Your task to perform on an android device: set the timer Image 0: 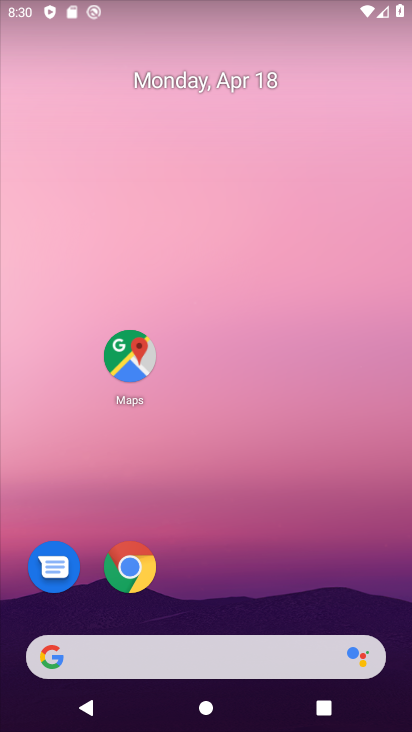
Step 0: click (297, 308)
Your task to perform on an android device: set the timer Image 1: 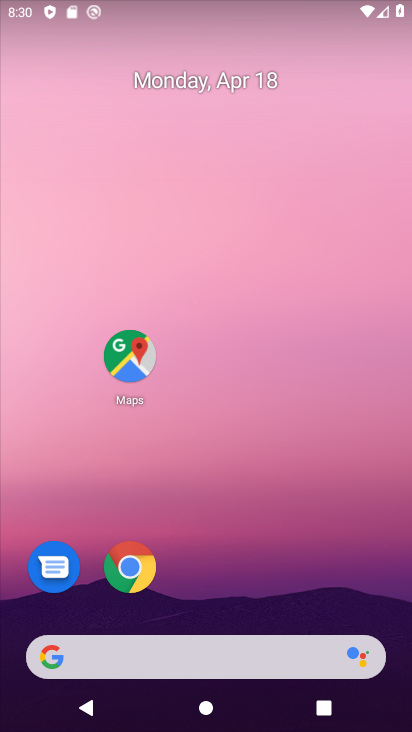
Step 1: drag from (226, 691) to (262, 59)
Your task to perform on an android device: set the timer Image 2: 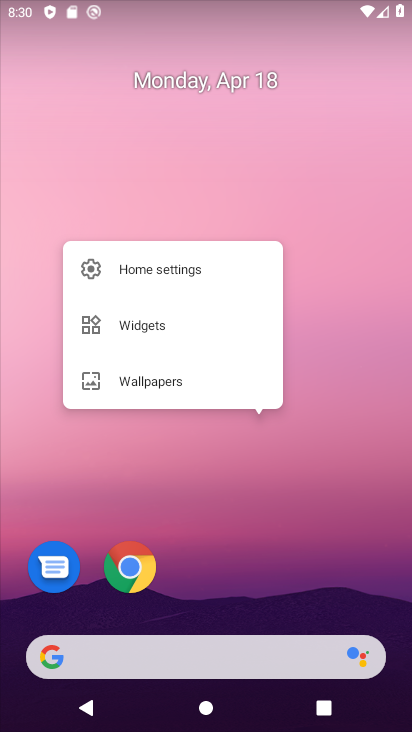
Step 2: click (208, 456)
Your task to perform on an android device: set the timer Image 3: 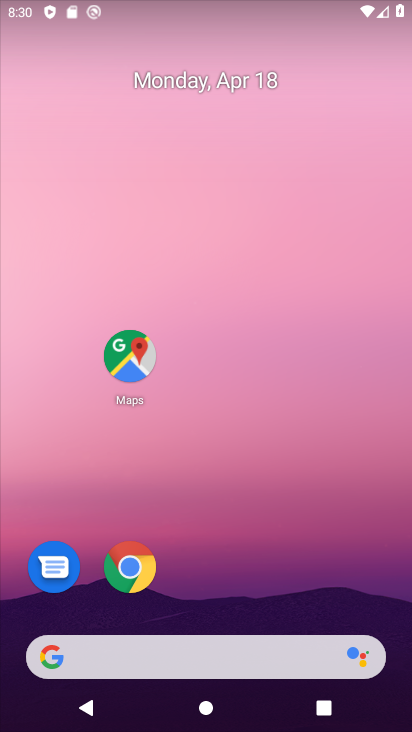
Step 3: drag from (241, 672) to (311, 270)
Your task to perform on an android device: set the timer Image 4: 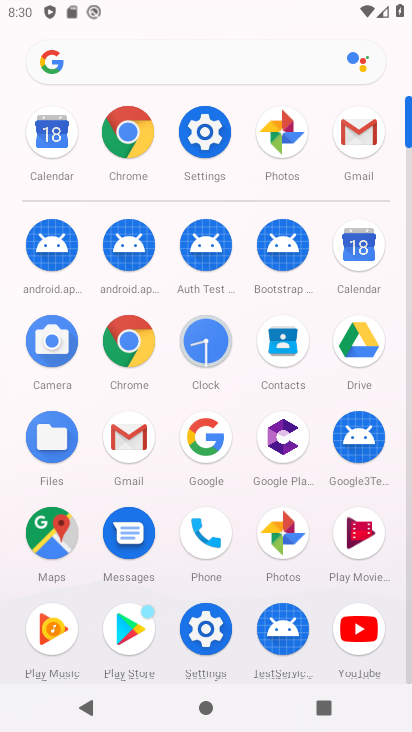
Step 4: click (200, 345)
Your task to perform on an android device: set the timer Image 5: 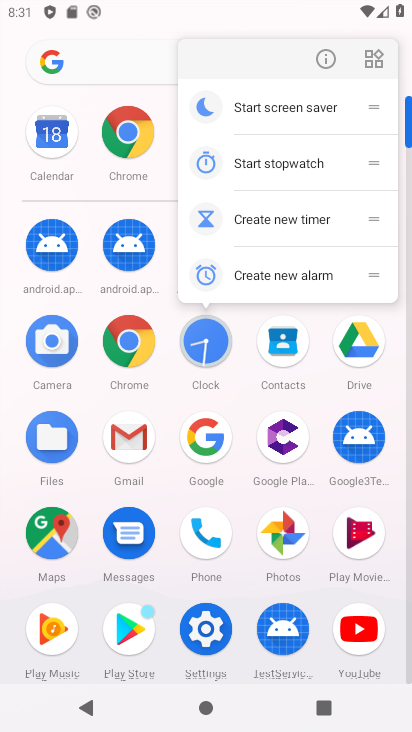
Step 5: click (201, 366)
Your task to perform on an android device: set the timer Image 6: 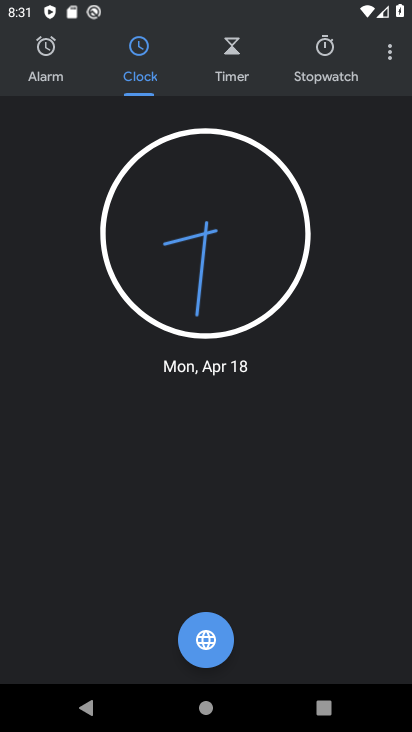
Step 6: click (240, 80)
Your task to perform on an android device: set the timer Image 7: 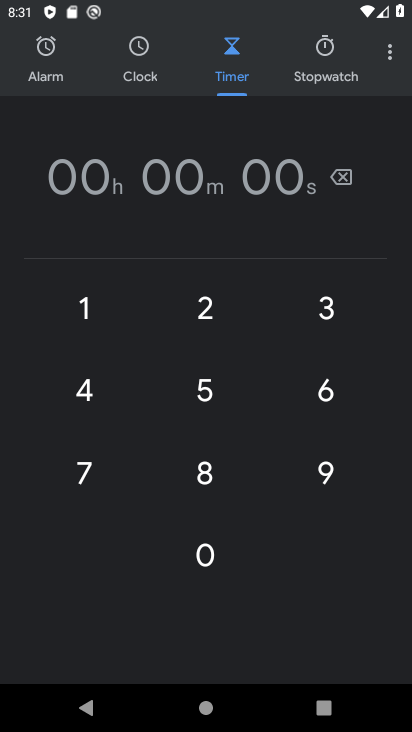
Step 7: click (202, 301)
Your task to perform on an android device: set the timer Image 8: 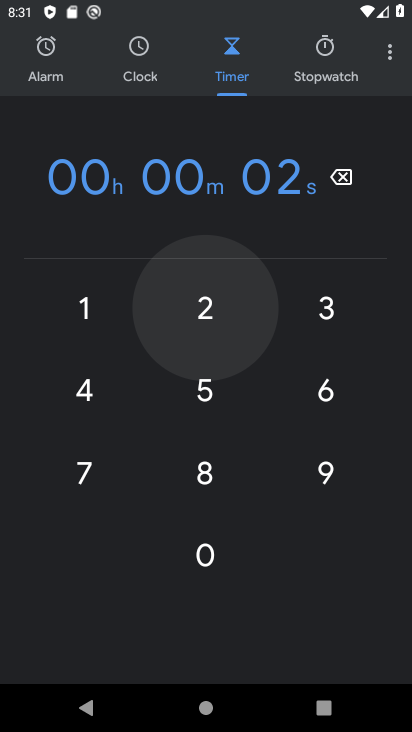
Step 8: click (203, 366)
Your task to perform on an android device: set the timer Image 9: 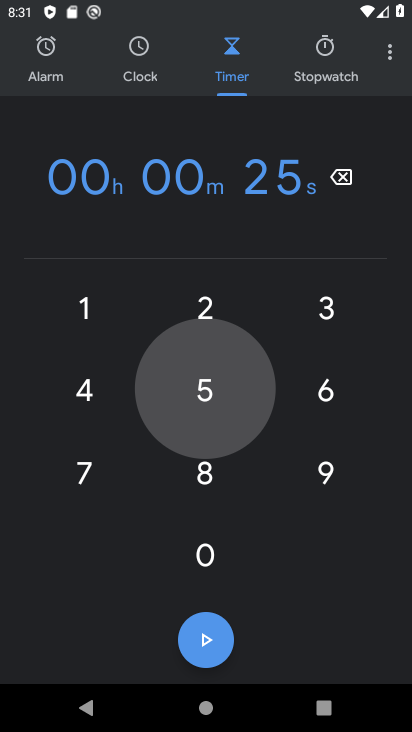
Step 9: click (100, 377)
Your task to perform on an android device: set the timer Image 10: 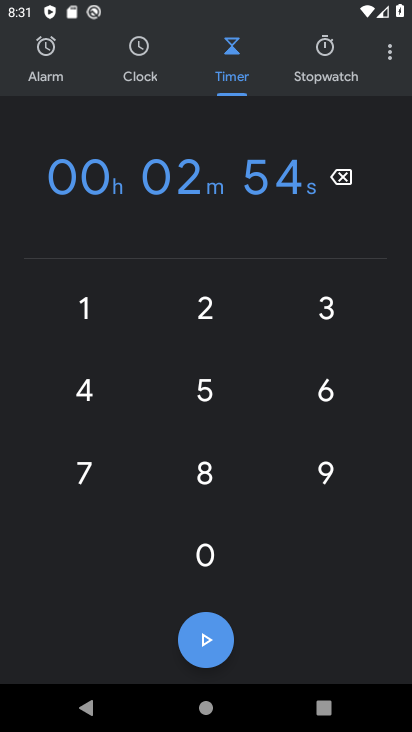
Step 10: click (80, 469)
Your task to perform on an android device: set the timer Image 11: 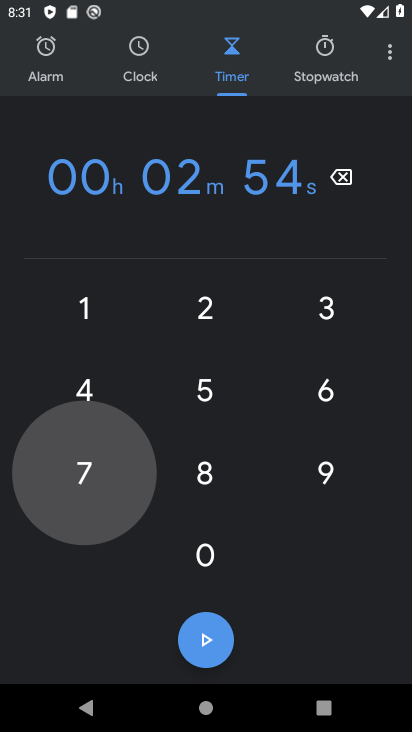
Step 11: click (213, 473)
Your task to perform on an android device: set the timer Image 12: 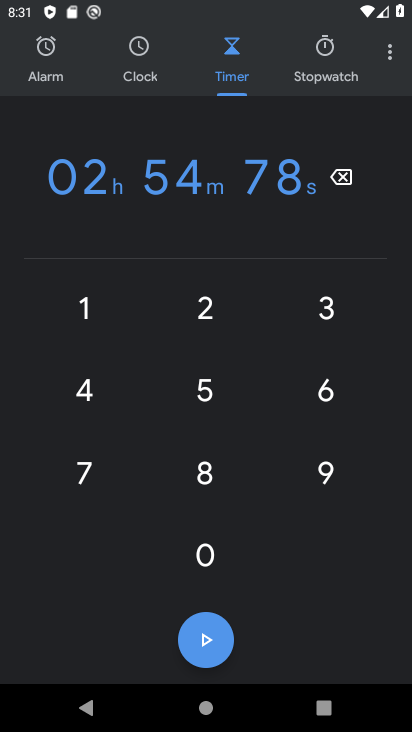
Step 12: click (322, 384)
Your task to perform on an android device: set the timer Image 13: 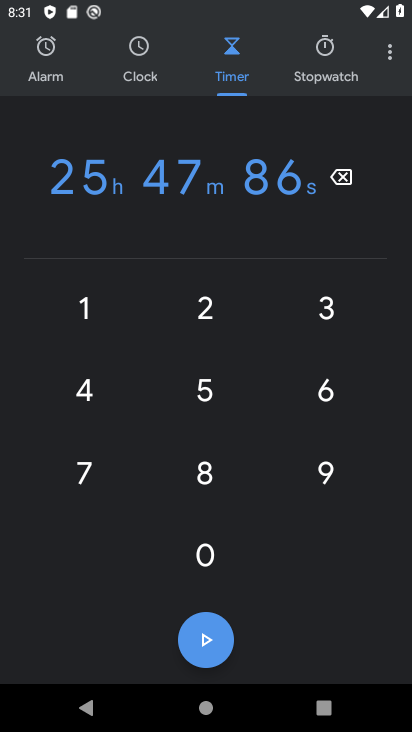
Step 13: task complete